Your task to perform on an android device: turn pop-ups on in chrome Image 0: 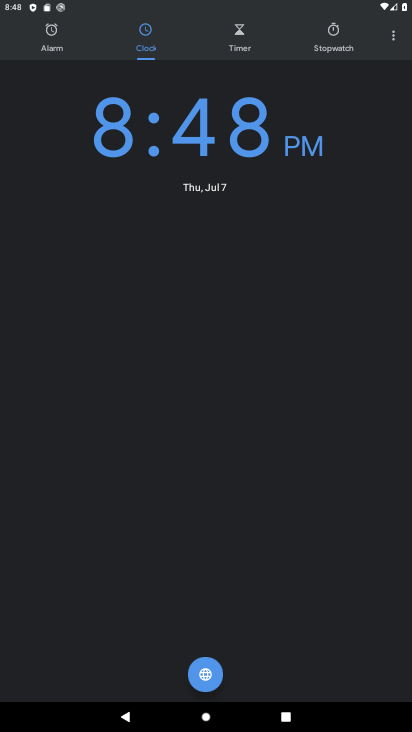
Step 0: press home button
Your task to perform on an android device: turn pop-ups on in chrome Image 1: 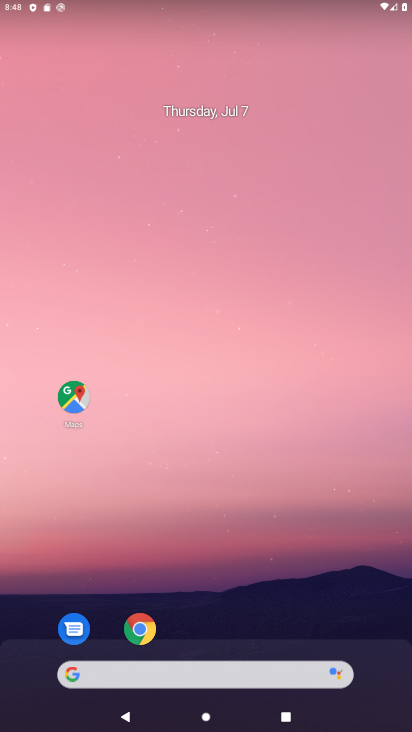
Step 1: click (139, 626)
Your task to perform on an android device: turn pop-ups on in chrome Image 2: 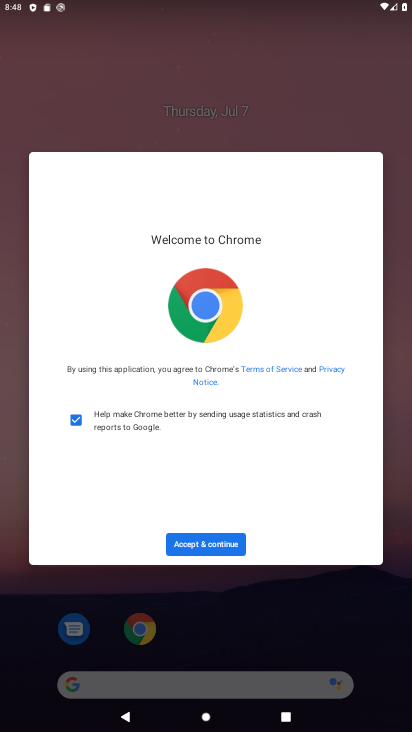
Step 2: click (196, 543)
Your task to perform on an android device: turn pop-ups on in chrome Image 3: 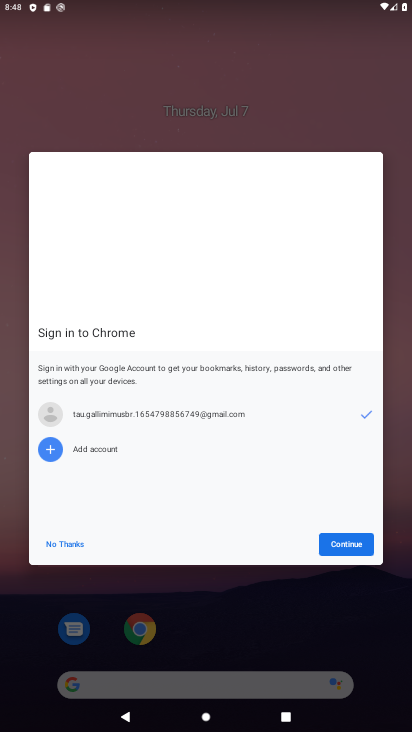
Step 3: click (352, 551)
Your task to perform on an android device: turn pop-ups on in chrome Image 4: 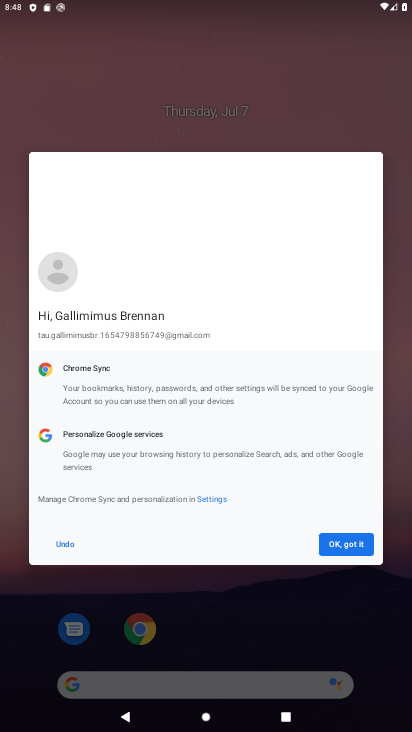
Step 4: click (350, 551)
Your task to perform on an android device: turn pop-ups on in chrome Image 5: 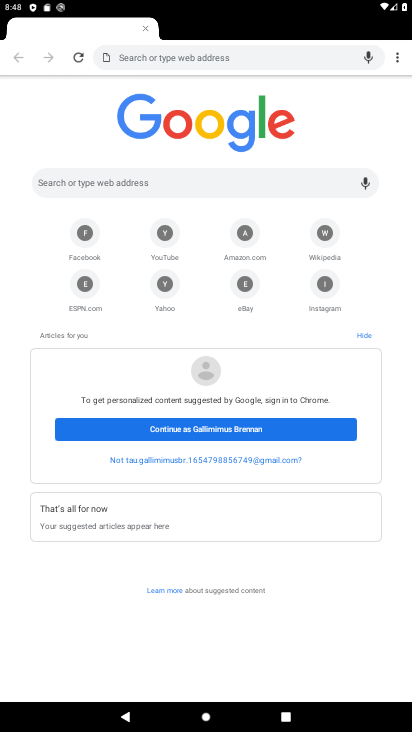
Step 5: click (395, 57)
Your task to perform on an android device: turn pop-ups on in chrome Image 6: 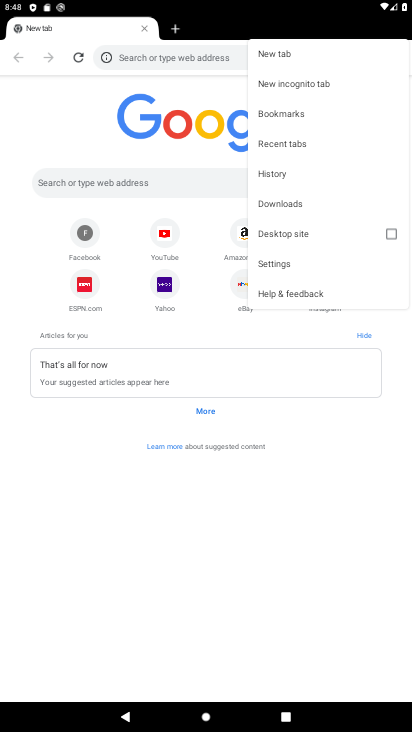
Step 6: click (273, 262)
Your task to perform on an android device: turn pop-ups on in chrome Image 7: 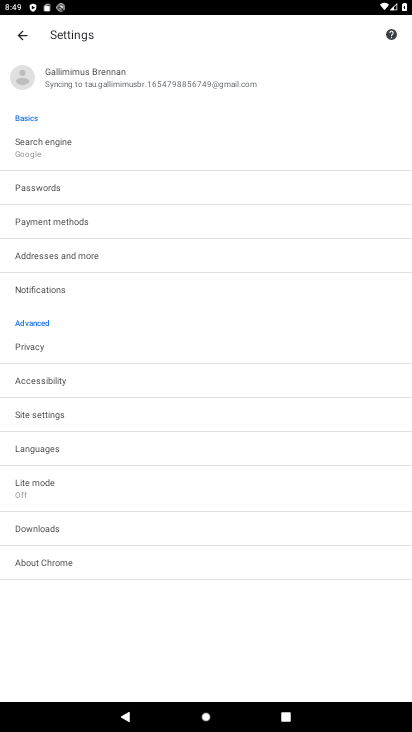
Step 7: click (49, 416)
Your task to perform on an android device: turn pop-ups on in chrome Image 8: 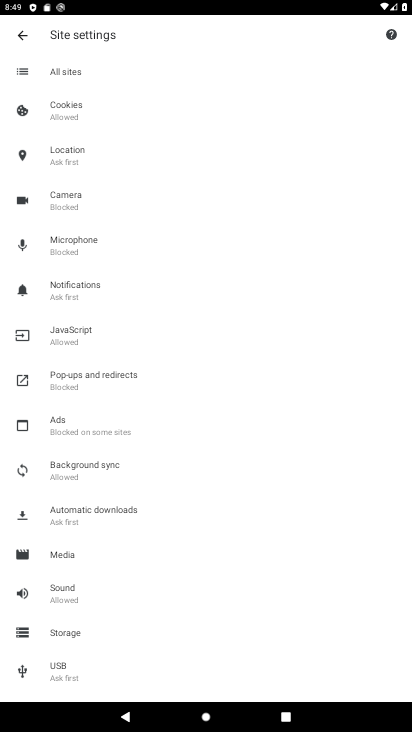
Step 8: click (93, 376)
Your task to perform on an android device: turn pop-ups on in chrome Image 9: 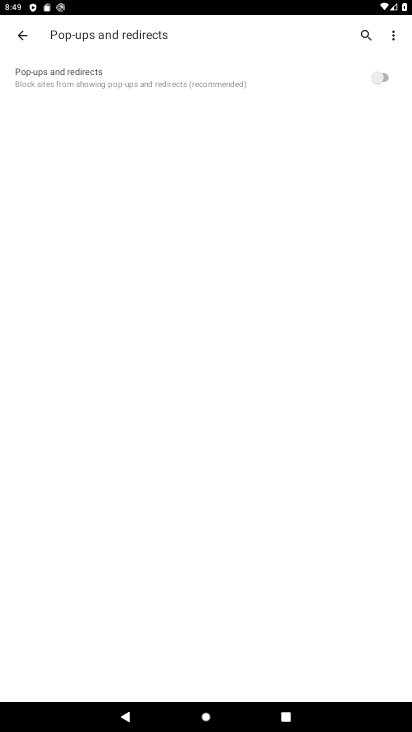
Step 9: click (376, 78)
Your task to perform on an android device: turn pop-ups on in chrome Image 10: 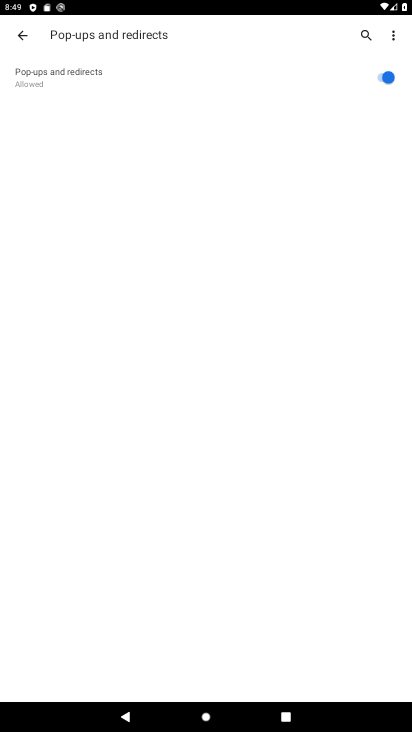
Step 10: task complete